Your task to perform on an android device: see tabs open on other devices in the chrome app Image 0: 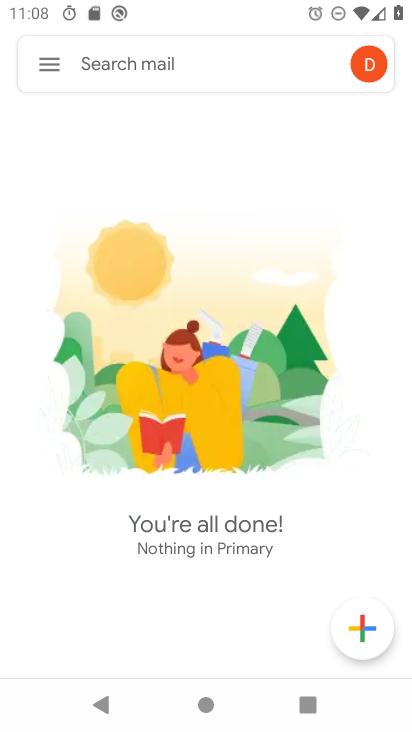
Step 0: press home button
Your task to perform on an android device: see tabs open on other devices in the chrome app Image 1: 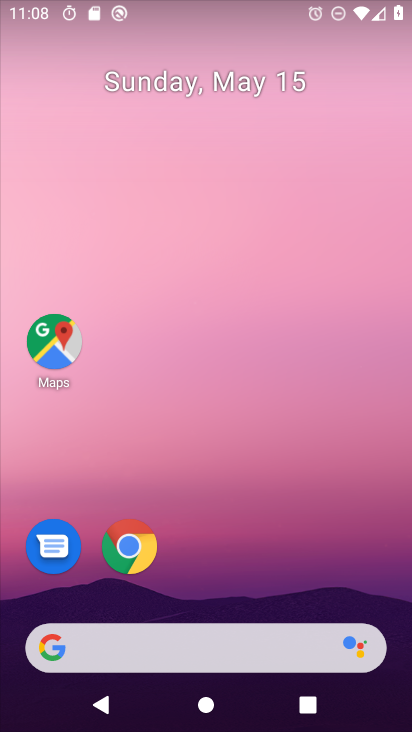
Step 1: click (123, 541)
Your task to perform on an android device: see tabs open on other devices in the chrome app Image 2: 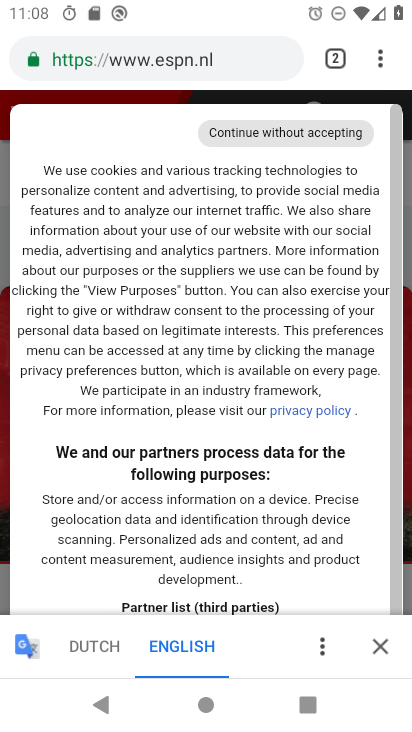
Step 2: task complete